Your task to perform on an android device: Open the stopwatch Image 0: 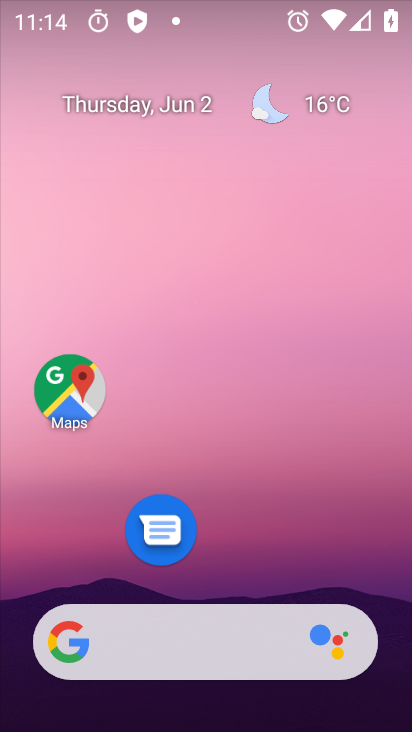
Step 0: drag from (282, 609) to (182, 84)
Your task to perform on an android device: Open the stopwatch Image 1: 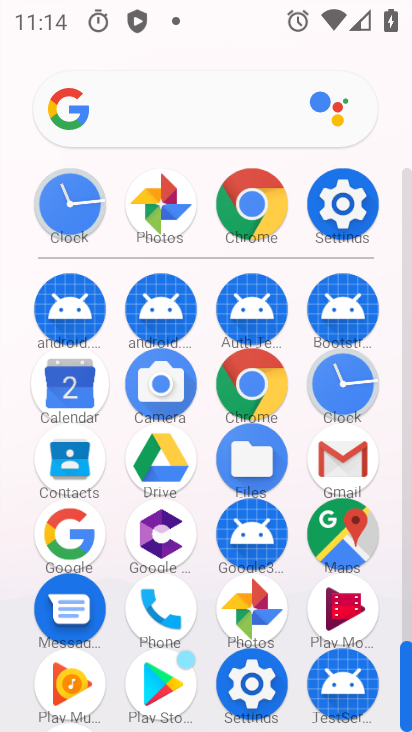
Step 1: click (337, 397)
Your task to perform on an android device: Open the stopwatch Image 2: 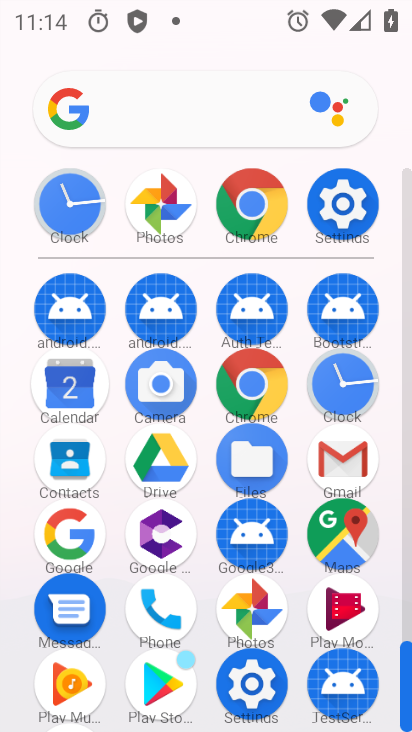
Step 2: click (337, 396)
Your task to perform on an android device: Open the stopwatch Image 3: 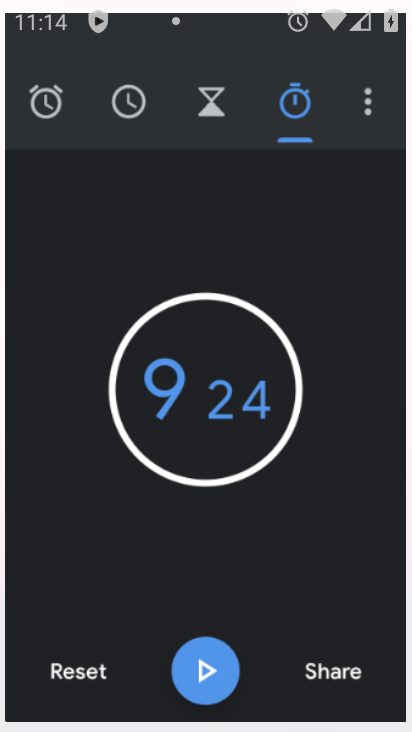
Step 3: click (337, 392)
Your task to perform on an android device: Open the stopwatch Image 4: 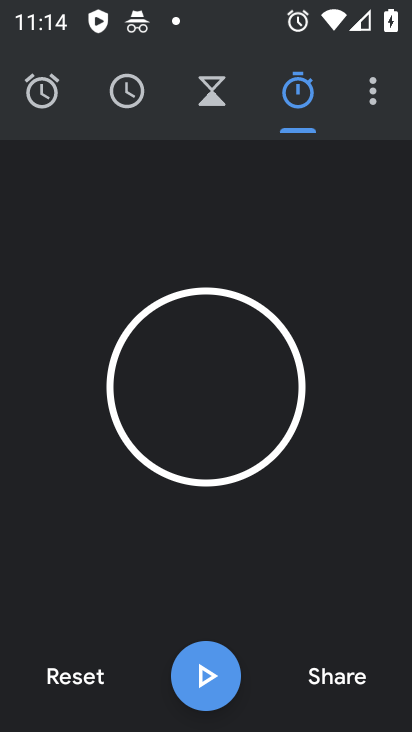
Step 4: click (210, 680)
Your task to perform on an android device: Open the stopwatch Image 5: 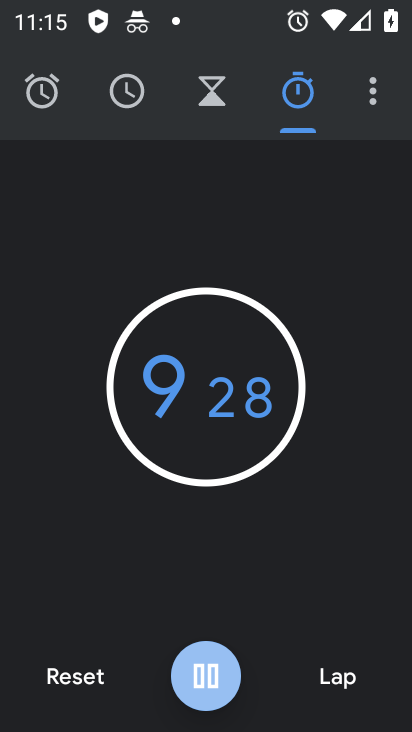
Step 5: click (215, 679)
Your task to perform on an android device: Open the stopwatch Image 6: 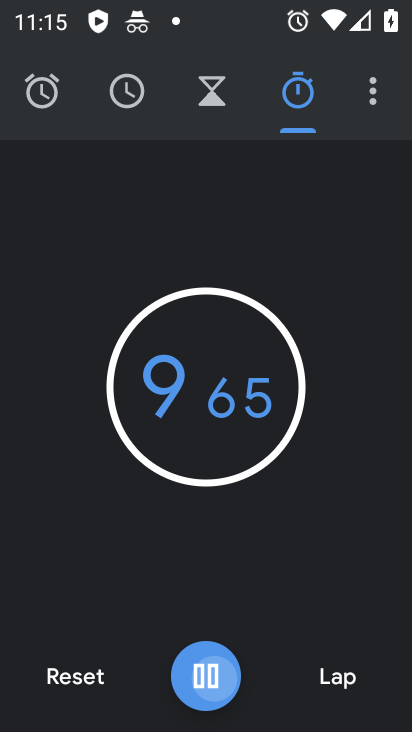
Step 6: click (216, 679)
Your task to perform on an android device: Open the stopwatch Image 7: 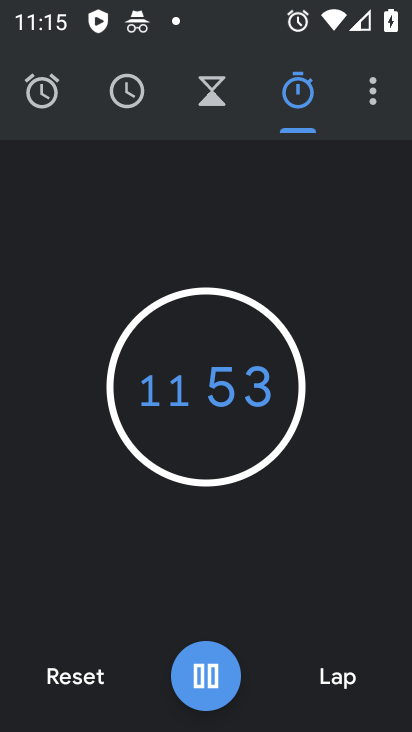
Step 7: click (199, 675)
Your task to perform on an android device: Open the stopwatch Image 8: 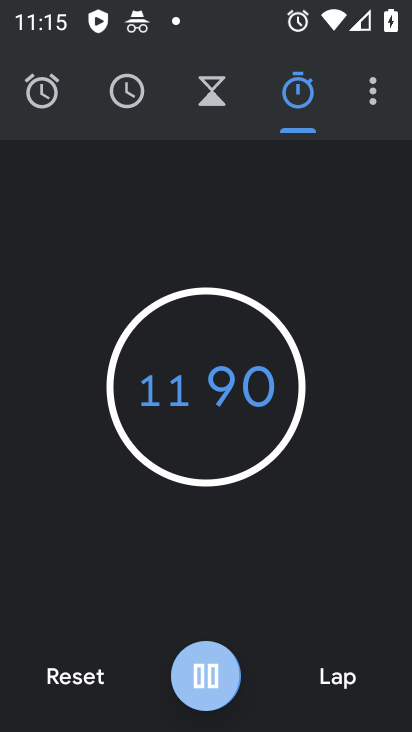
Step 8: click (199, 675)
Your task to perform on an android device: Open the stopwatch Image 9: 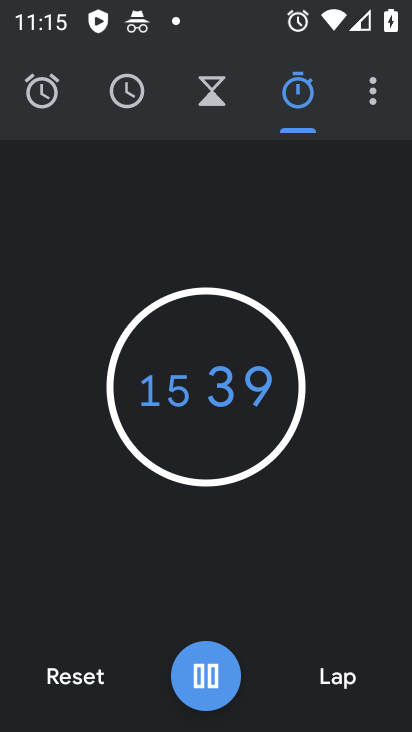
Step 9: click (200, 678)
Your task to perform on an android device: Open the stopwatch Image 10: 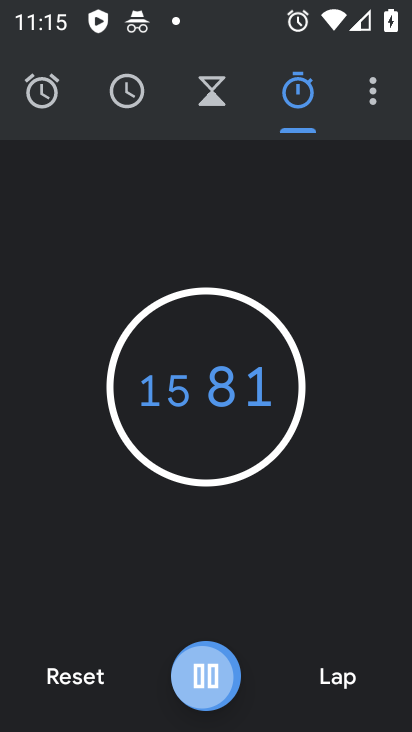
Step 10: click (203, 675)
Your task to perform on an android device: Open the stopwatch Image 11: 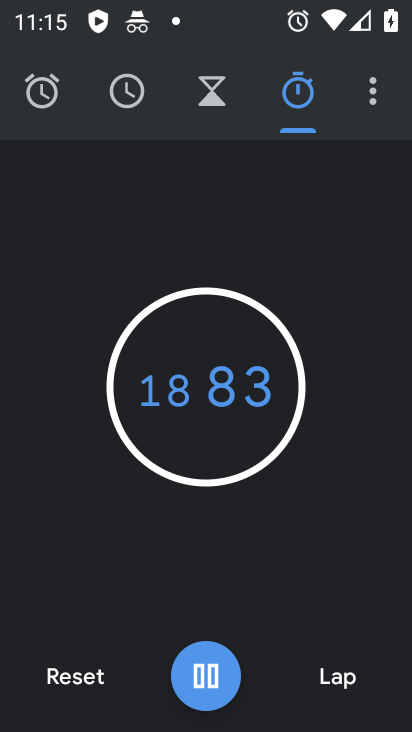
Step 11: click (195, 678)
Your task to perform on an android device: Open the stopwatch Image 12: 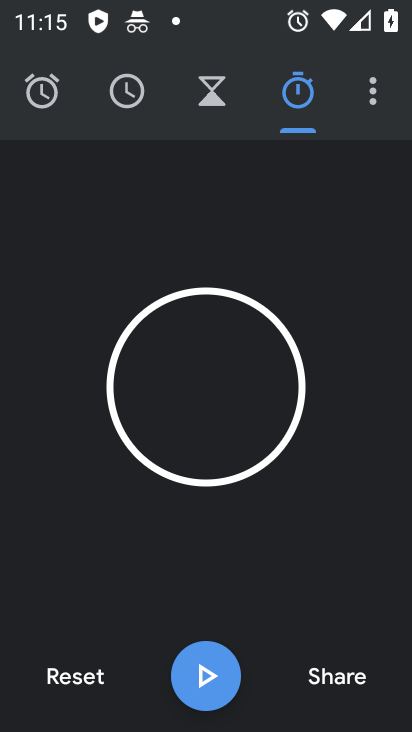
Step 12: task complete